Your task to perform on an android device: open device folders in google photos Image 0: 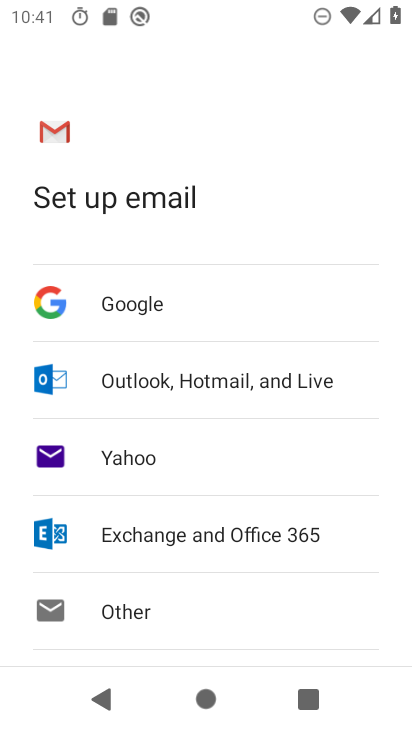
Step 0: press home button
Your task to perform on an android device: open device folders in google photos Image 1: 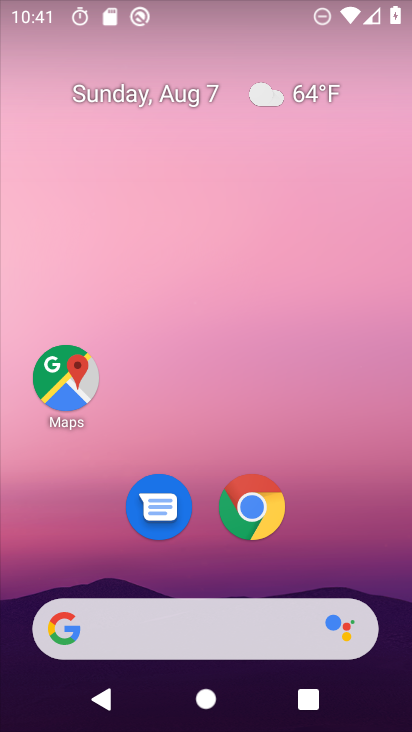
Step 1: drag from (351, 535) to (299, 86)
Your task to perform on an android device: open device folders in google photos Image 2: 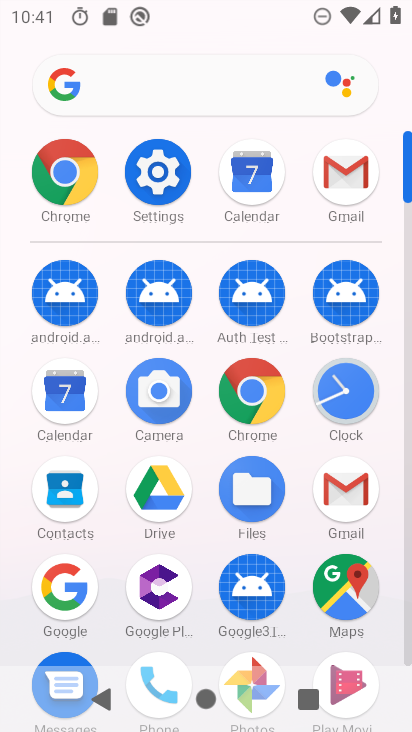
Step 2: drag from (293, 542) to (306, 296)
Your task to perform on an android device: open device folders in google photos Image 3: 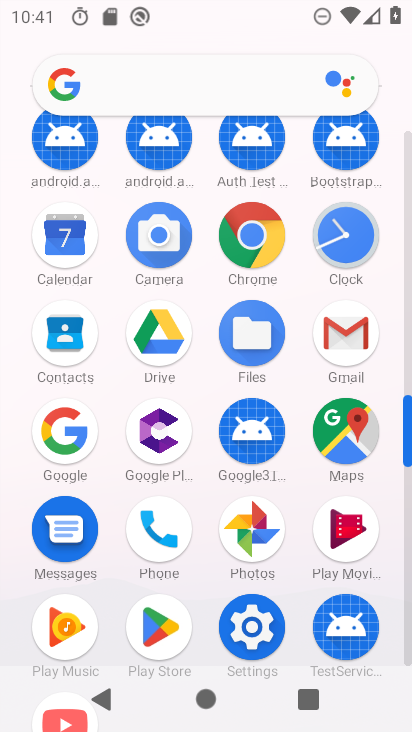
Step 3: click (256, 563)
Your task to perform on an android device: open device folders in google photos Image 4: 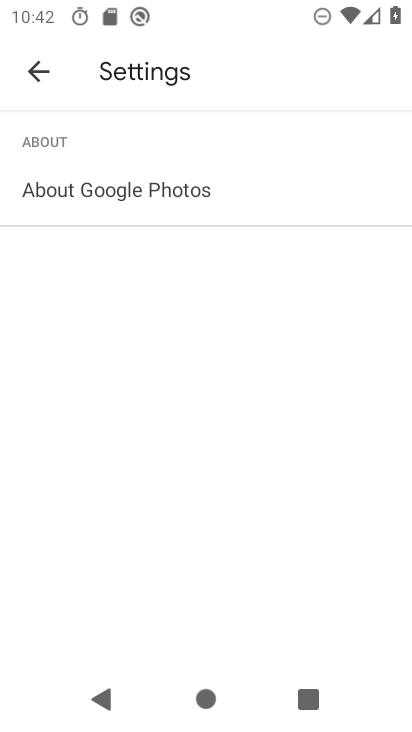
Step 4: click (27, 56)
Your task to perform on an android device: open device folders in google photos Image 5: 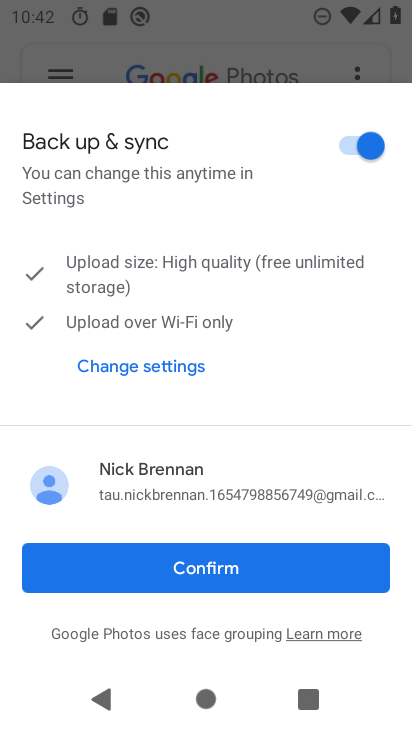
Step 5: click (252, 577)
Your task to perform on an android device: open device folders in google photos Image 6: 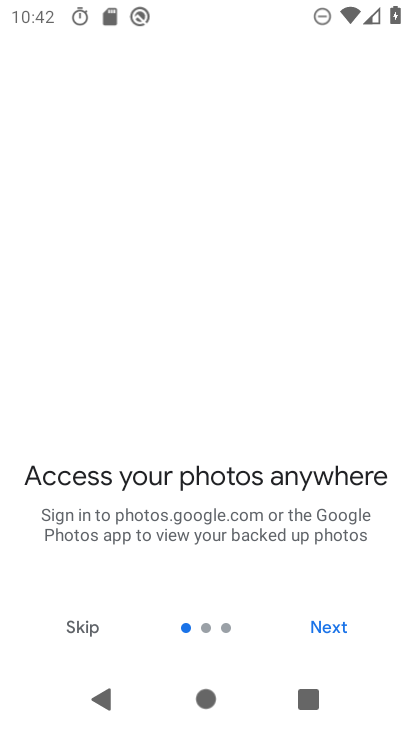
Step 6: click (325, 622)
Your task to perform on an android device: open device folders in google photos Image 7: 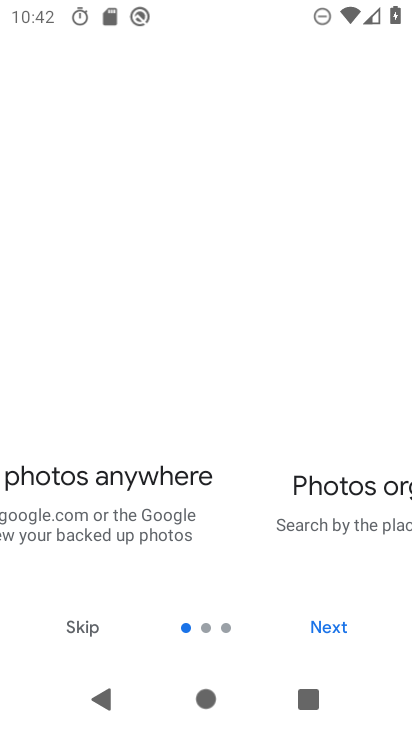
Step 7: click (325, 622)
Your task to perform on an android device: open device folders in google photos Image 8: 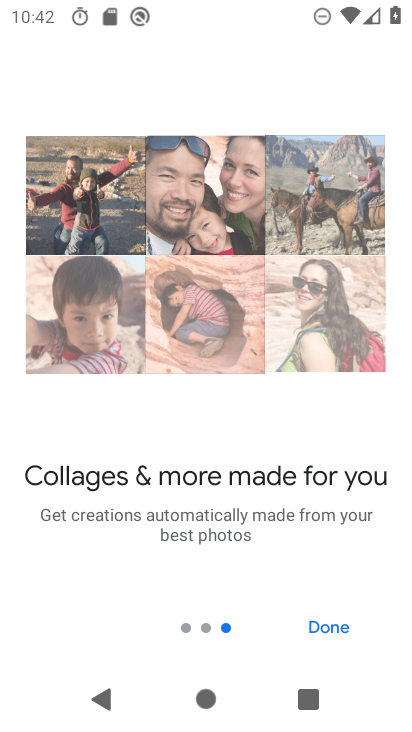
Step 8: click (325, 622)
Your task to perform on an android device: open device folders in google photos Image 9: 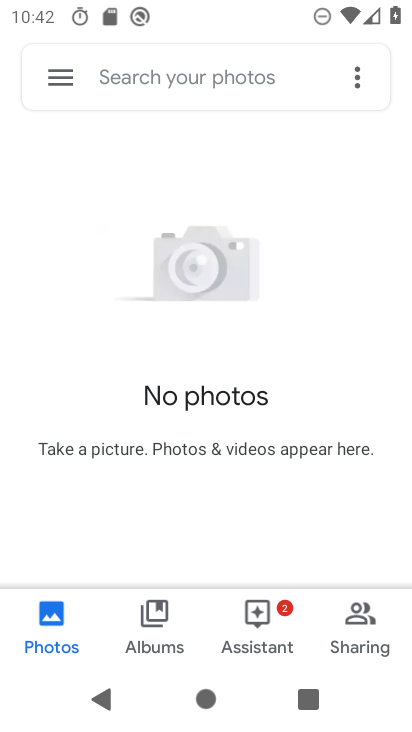
Step 9: click (74, 72)
Your task to perform on an android device: open device folders in google photos Image 10: 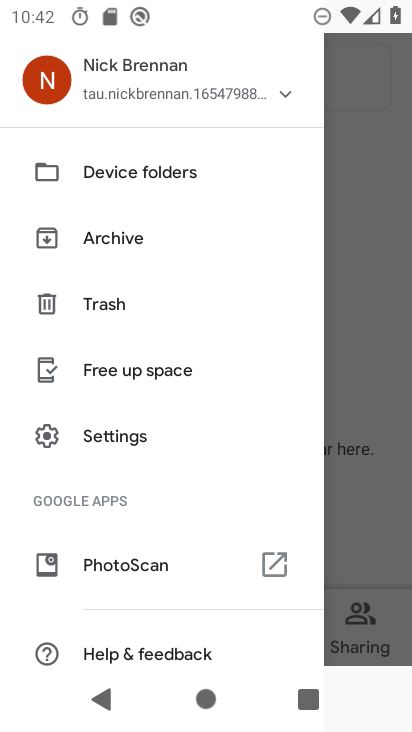
Step 10: click (170, 168)
Your task to perform on an android device: open device folders in google photos Image 11: 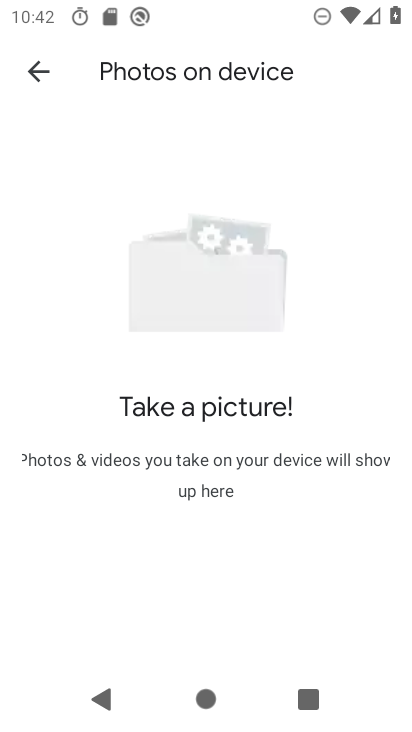
Step 11: task complete